Your task to perform on an android device: set an alarm Image 0: 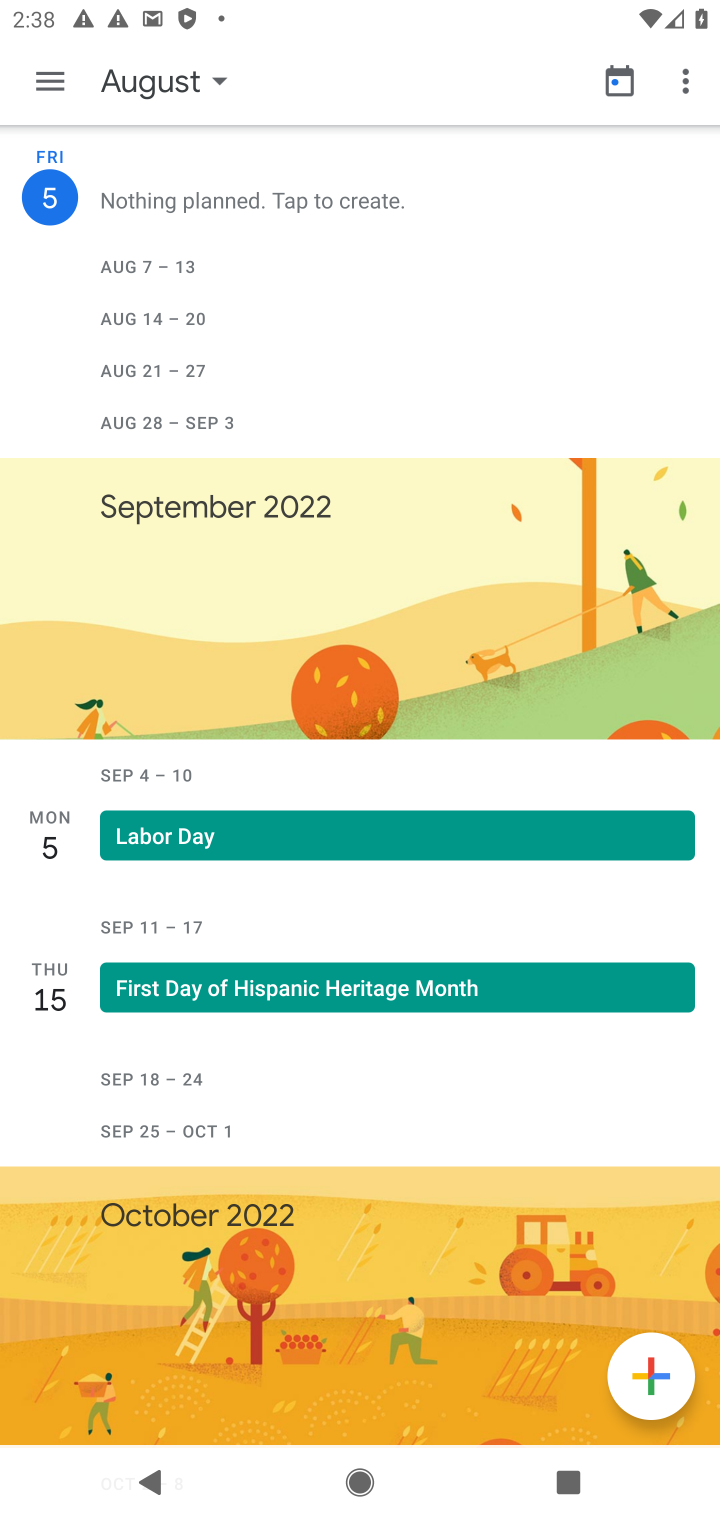
Step 0: press home button
Your task to perform on an android device: set an alarm Image 1: 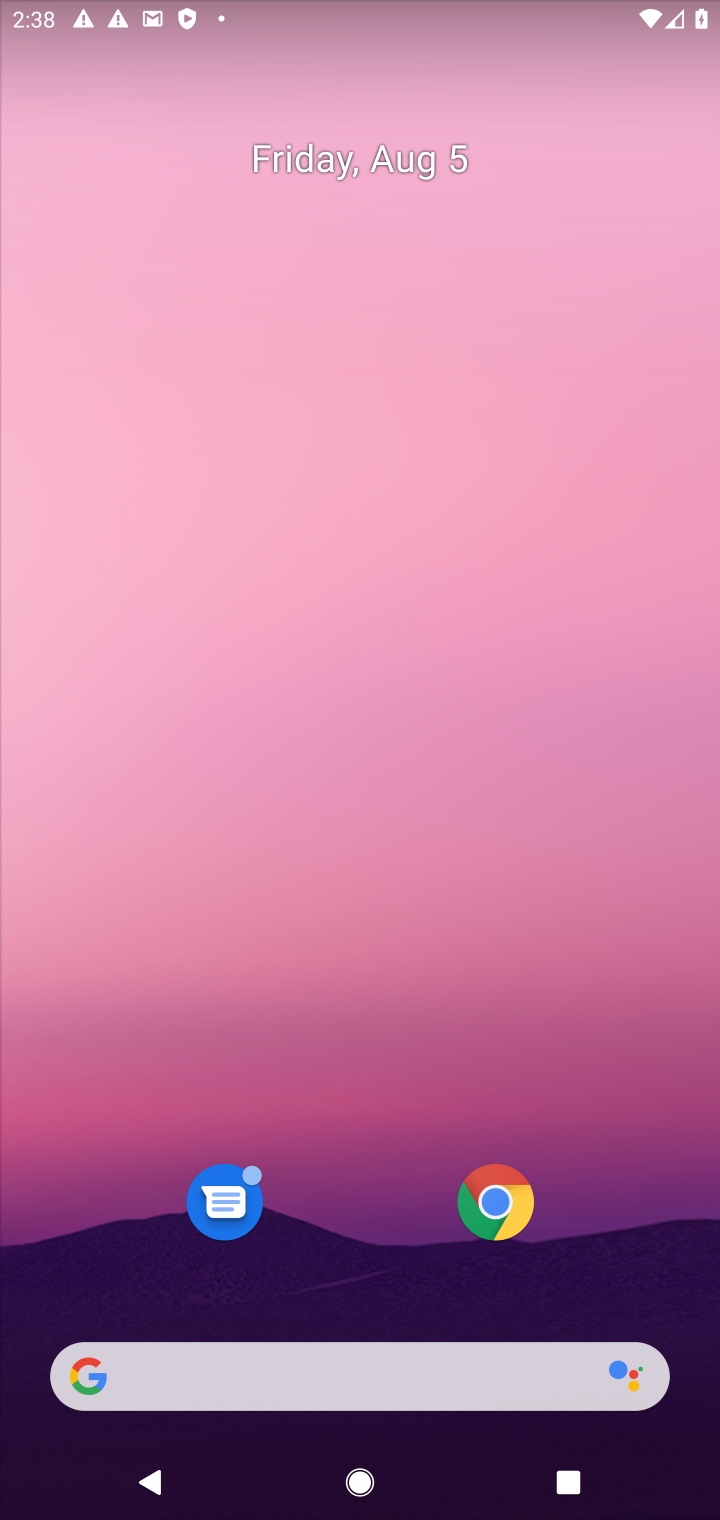
Step 1: drag from (370, 1256) to (660, 729)
Your task to perform on an android device: set an alarm Image 2: 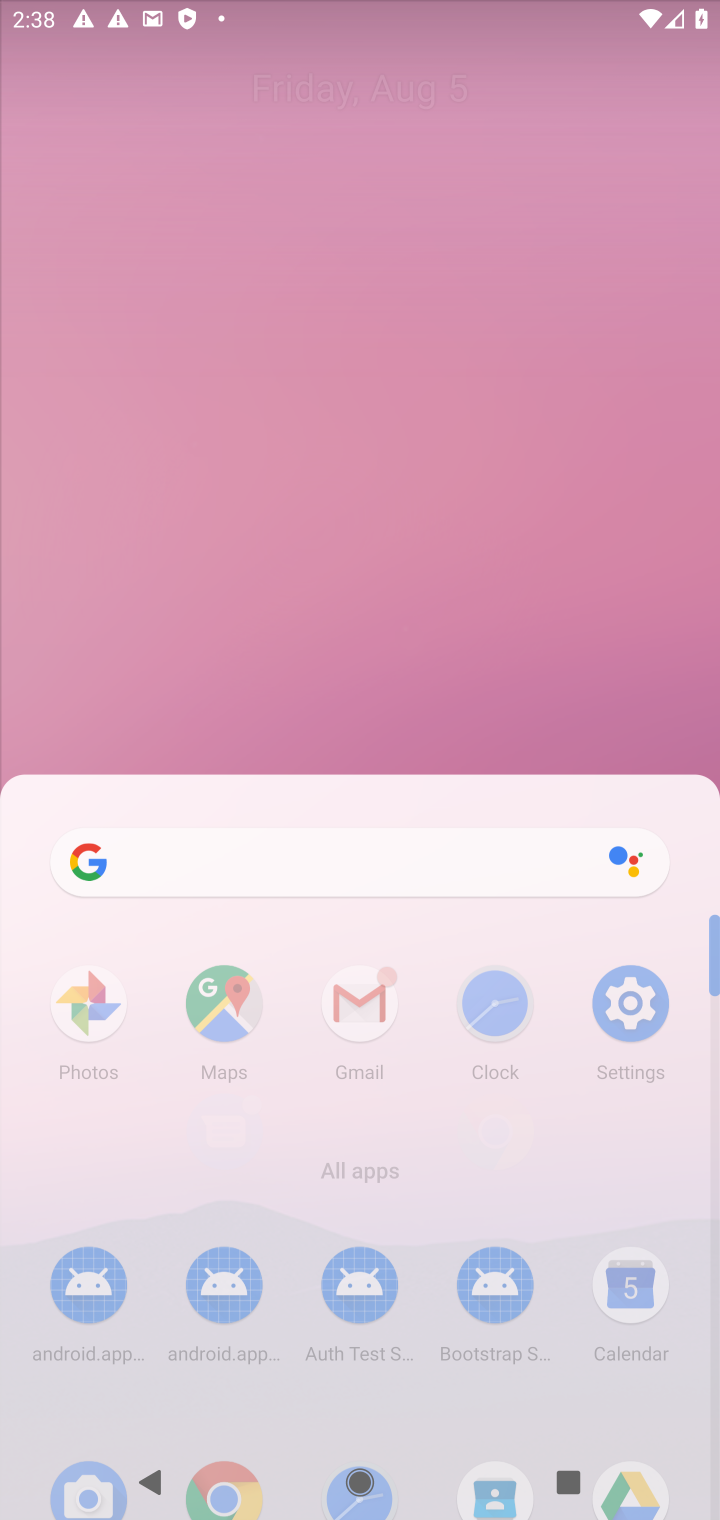
Step 2: click (351, 790)
Your task to perform on an android device: set an alarm Image 3: 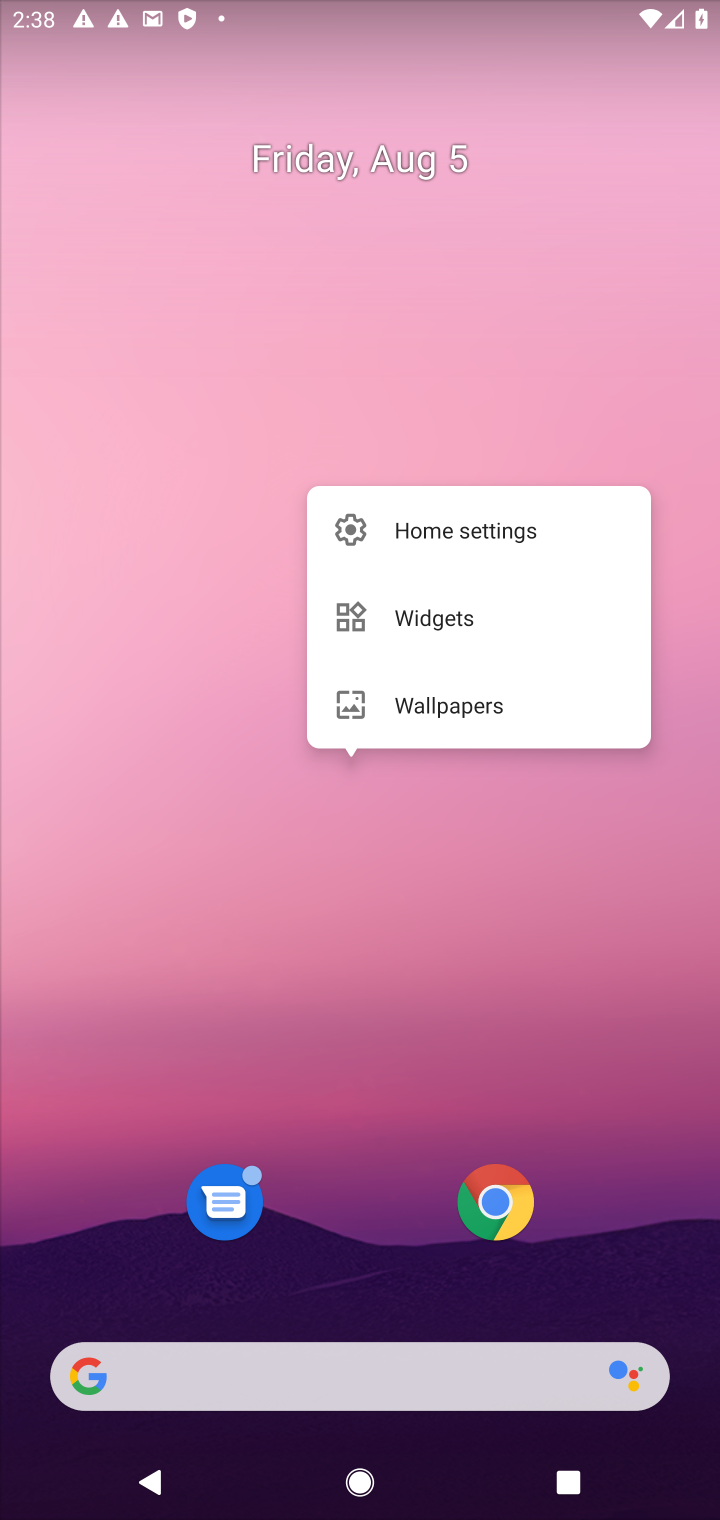
Step 3: drag from (337, 1107) to (359, 12)
Your task to perform on an android device: set an alarm Image 4: 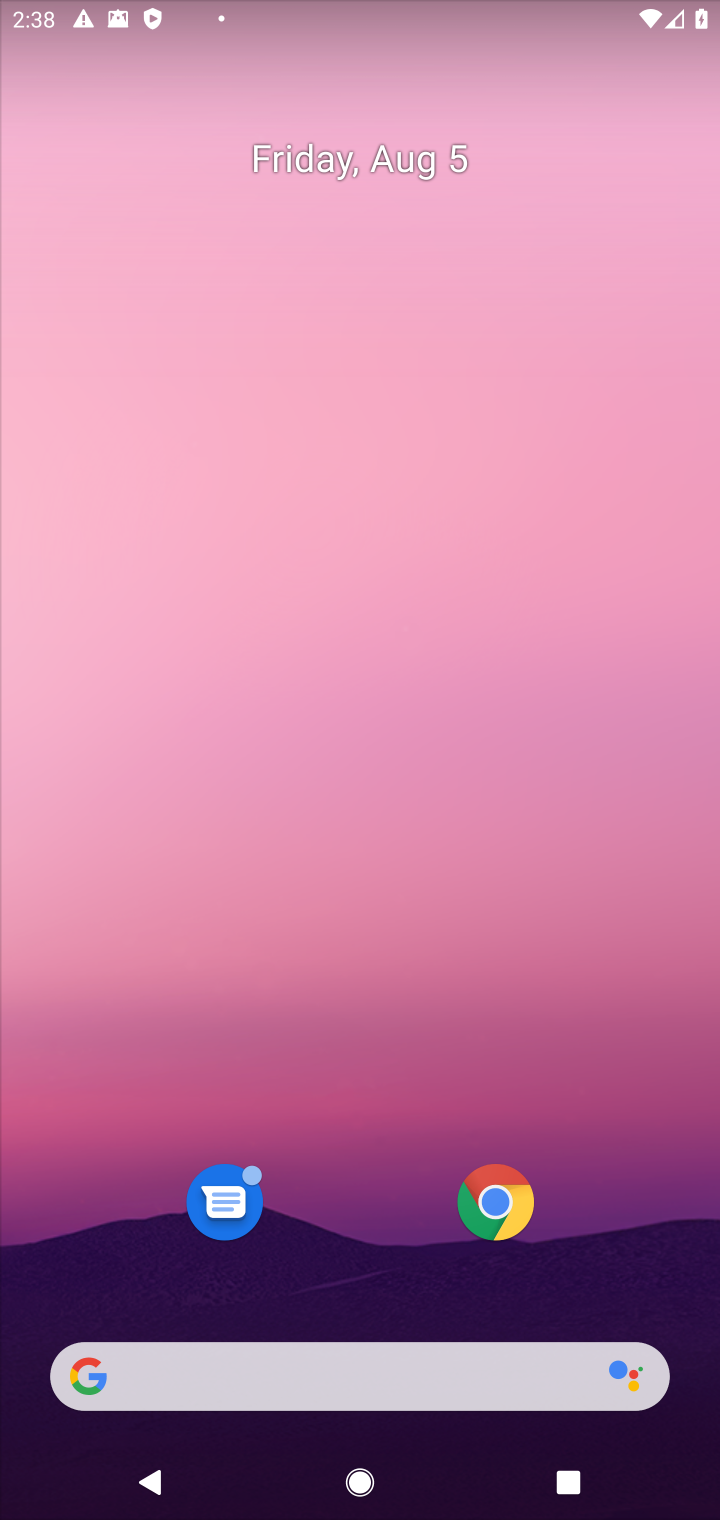
Step 4: drag from (359, 1160) to (664, 0)
Your task to perform on an android device: set an alarm Image 5: 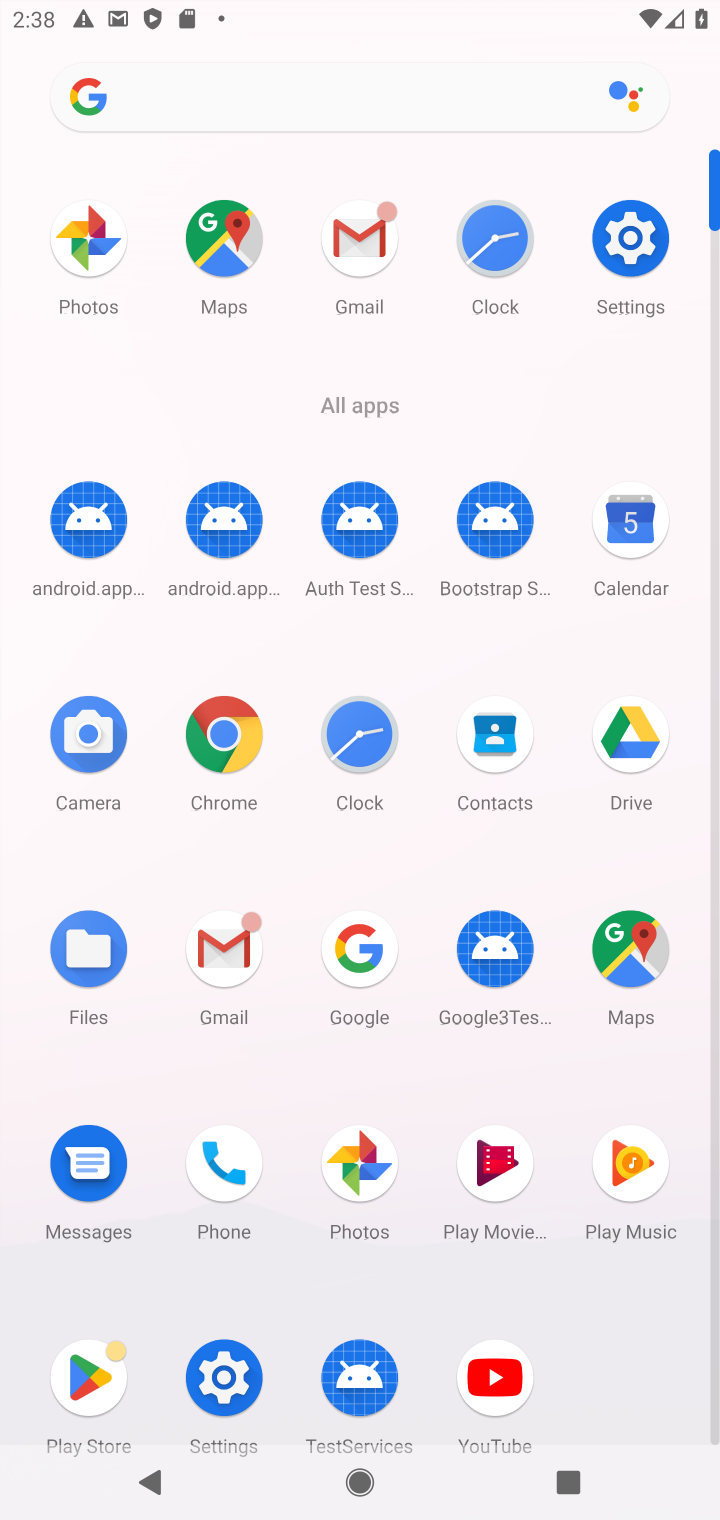
Step 5: click (359, 774)
Your task to perform on an android device: set an alarm Image 6: 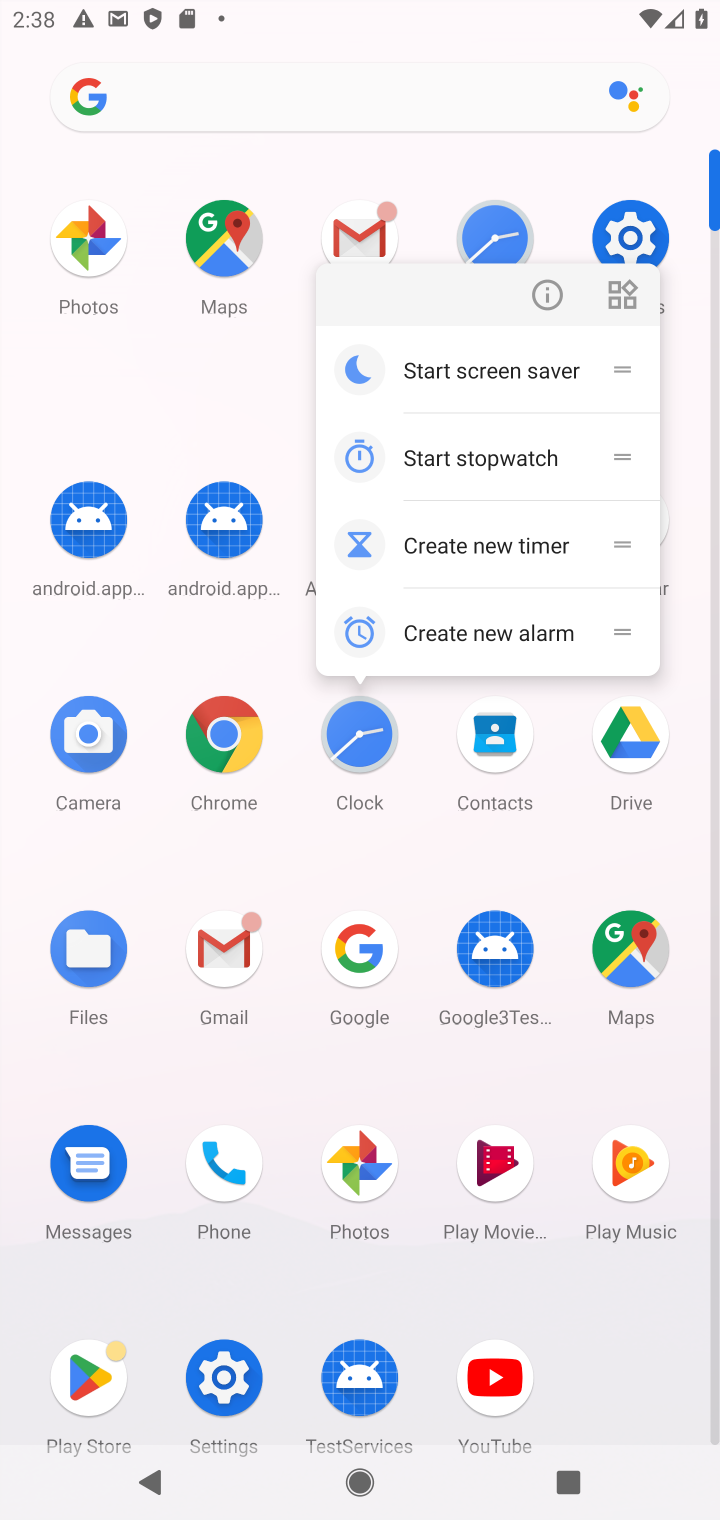
Step 6: click (367, 753)
Your task to perform on an android device: set an alarm Image 7: 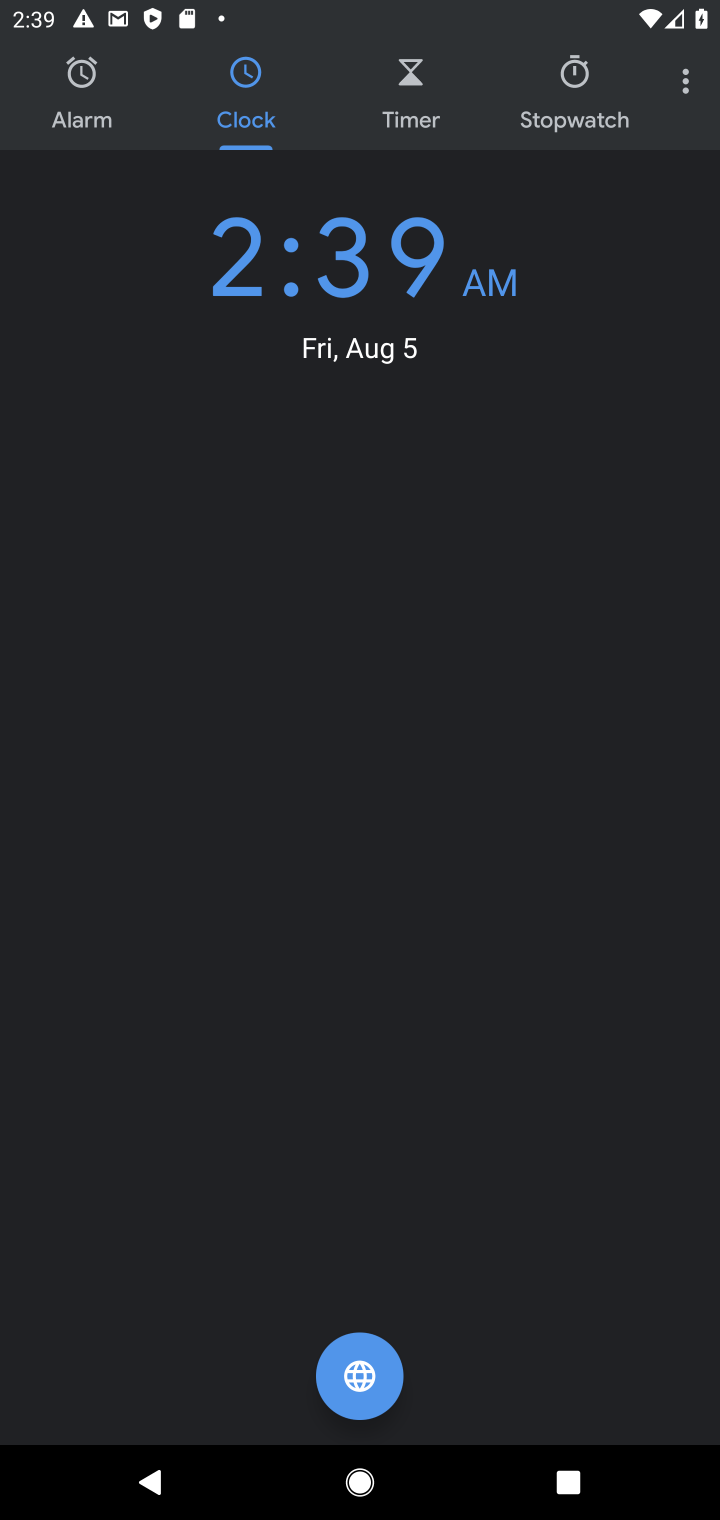
Step 7: click (67, 83)
Your task to perform on an android device: set an alarm Image 8: 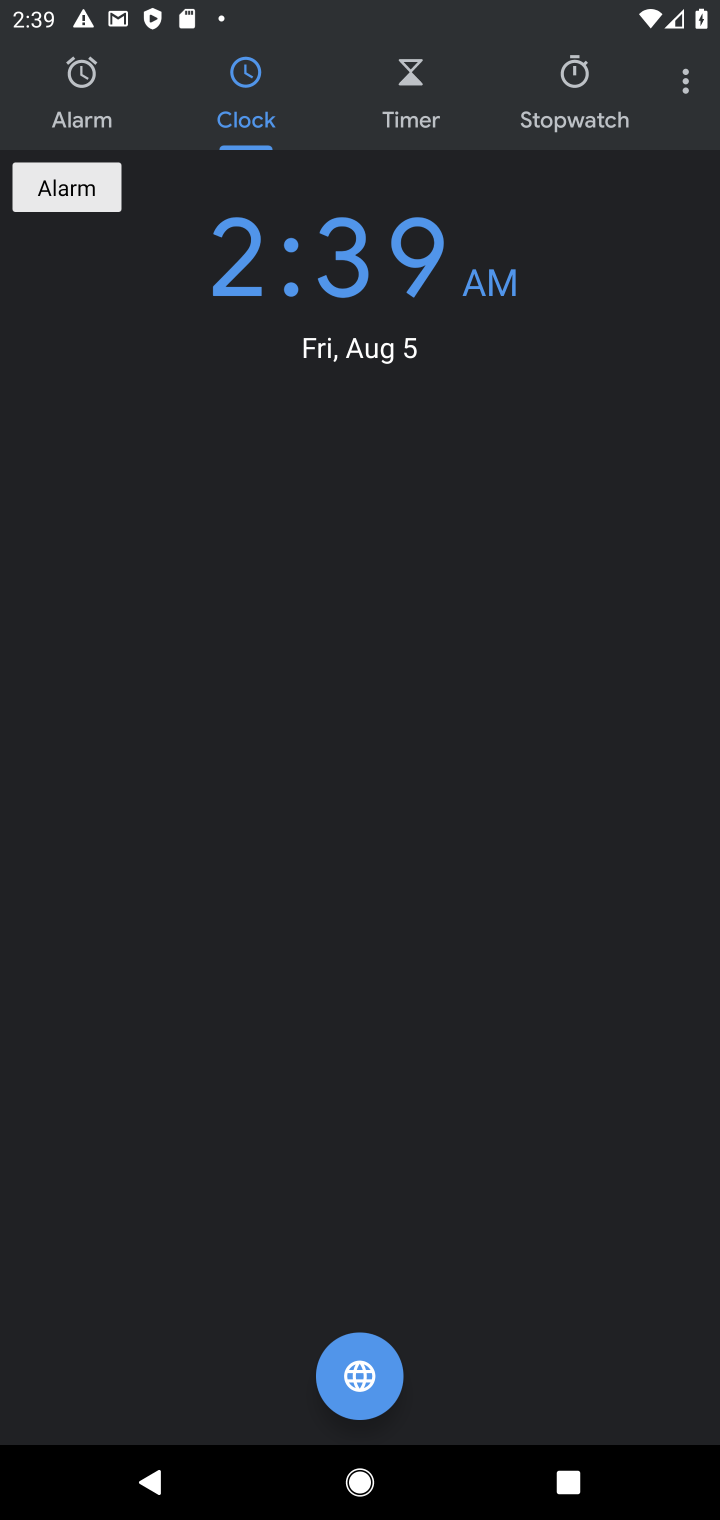
Step 8: click (59, 92)
Your task to perform on an android device: set an alarm Image 9: 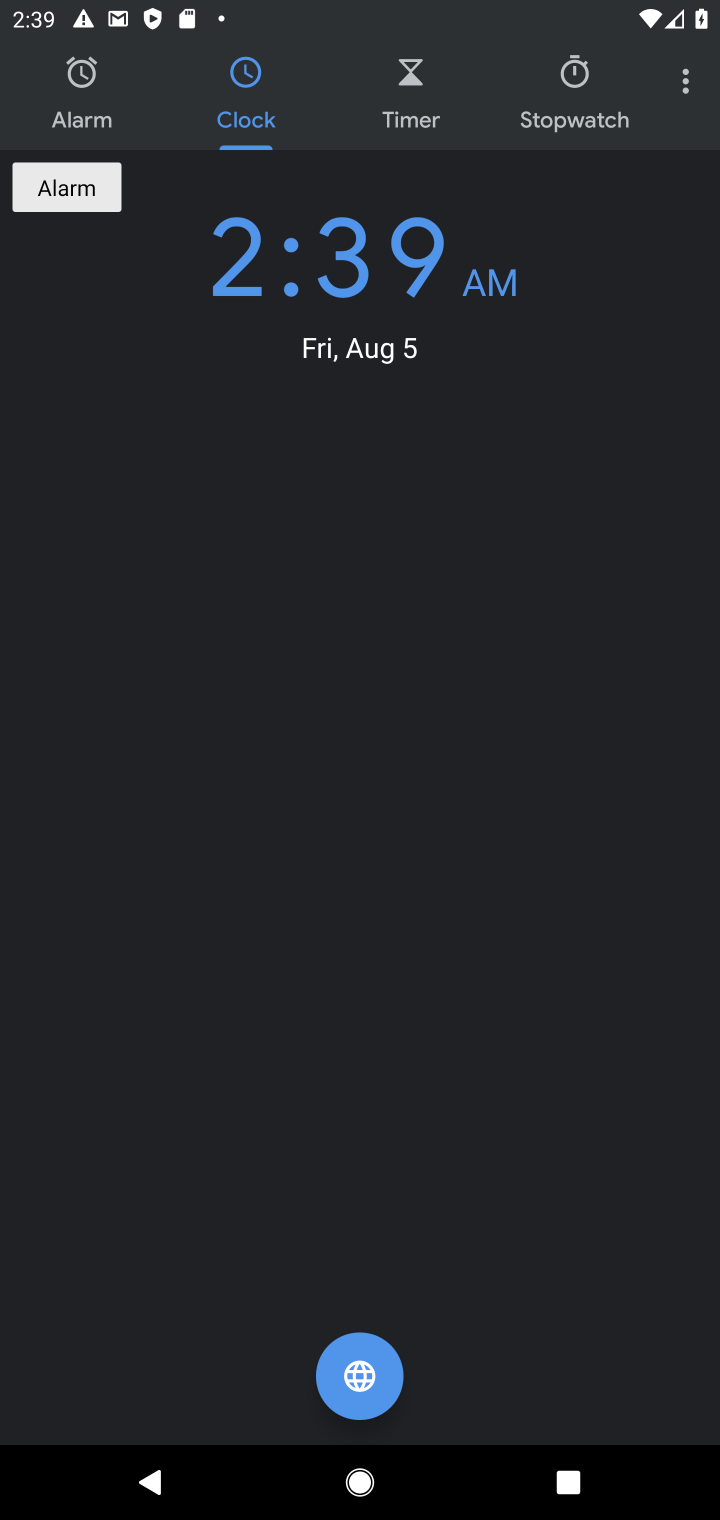
Step 9: click (59, 92)
Your task to perform on an android device: set an alarm Image 10: 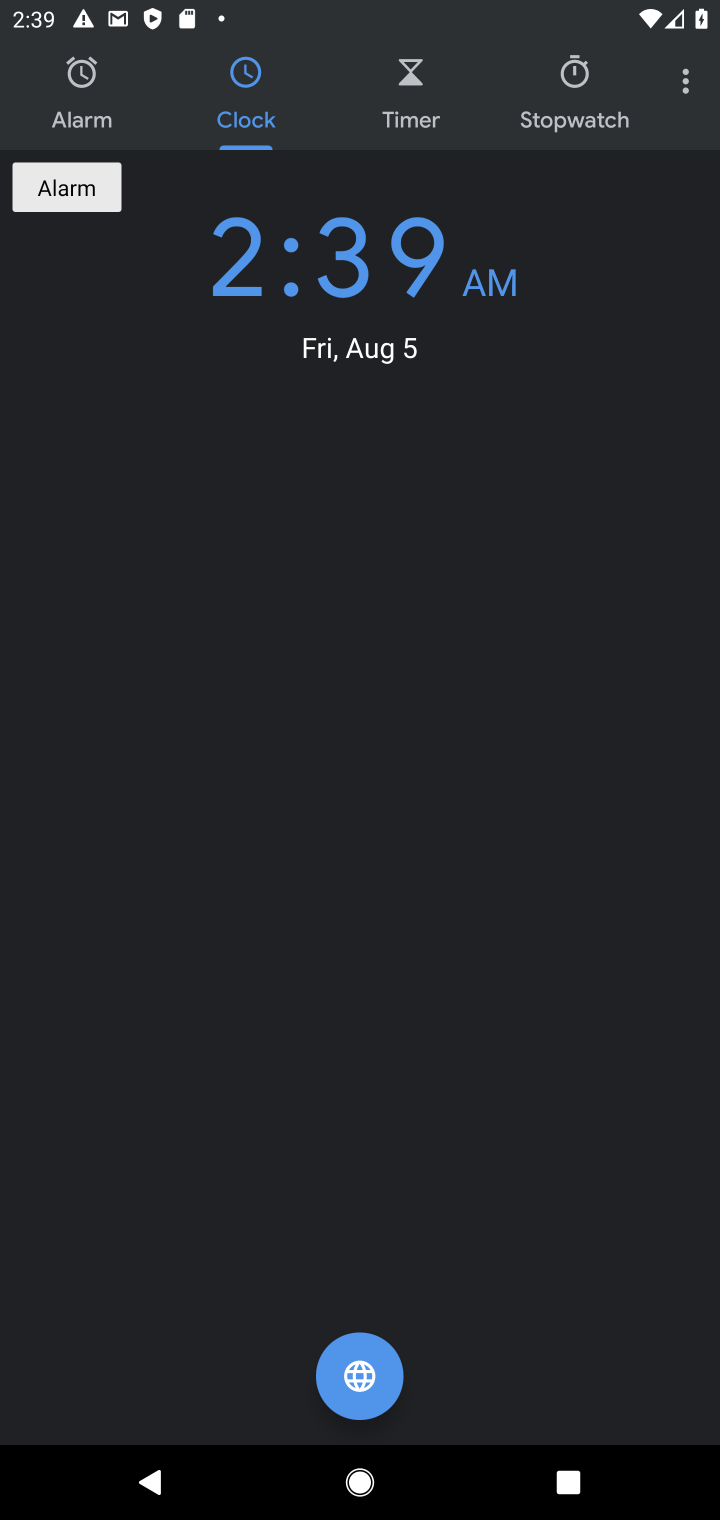
Step 10: click (59, 92)
Your task to perform on an android device: set an alarm Image 11: 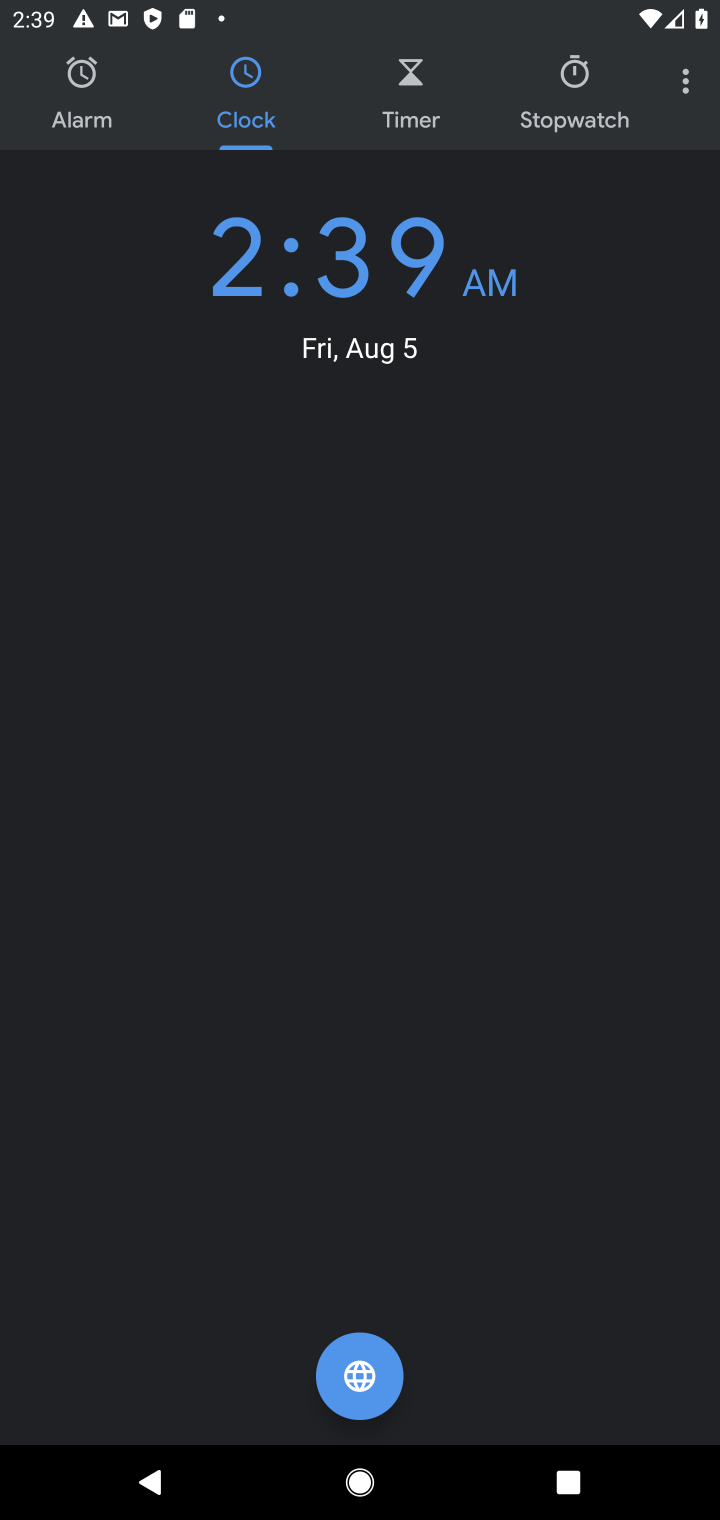
Step 11: click (89, 87)
Your task to perform on an android device: set an alarm Image 12: 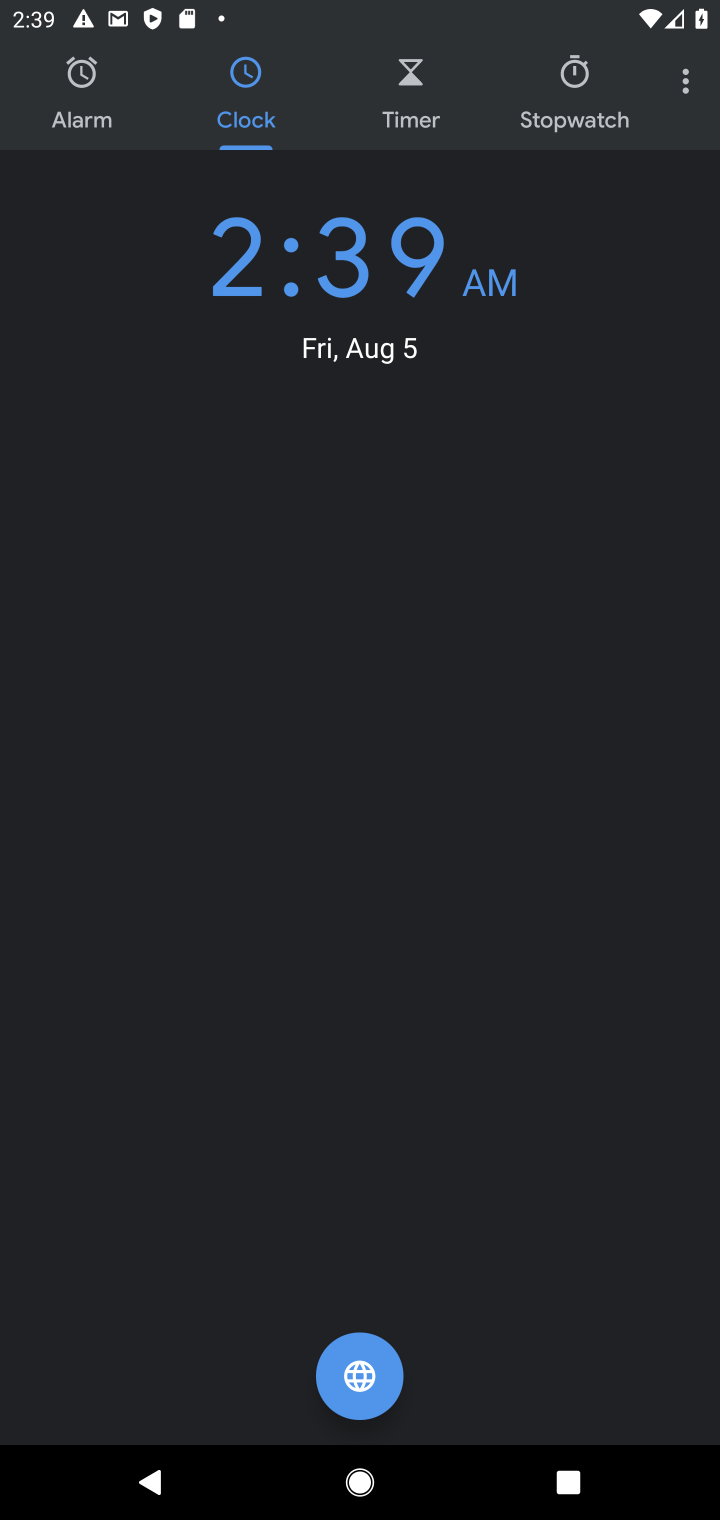
Step 12: click (89, 87)
Your task to perform on an android device: set an alarm Image 13: 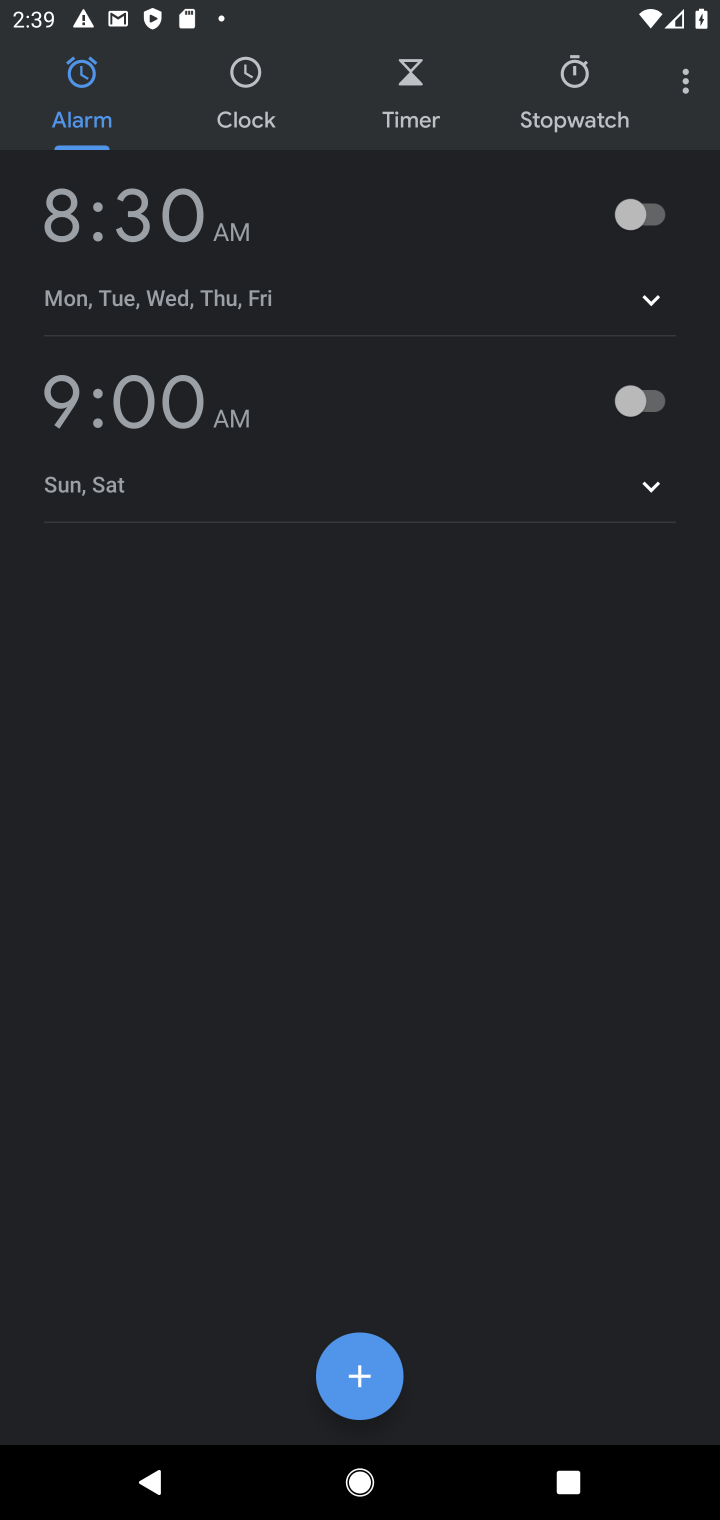
Step 13: click (383, 1363)
Your task to perform on an android device: set an alarm Image 14: 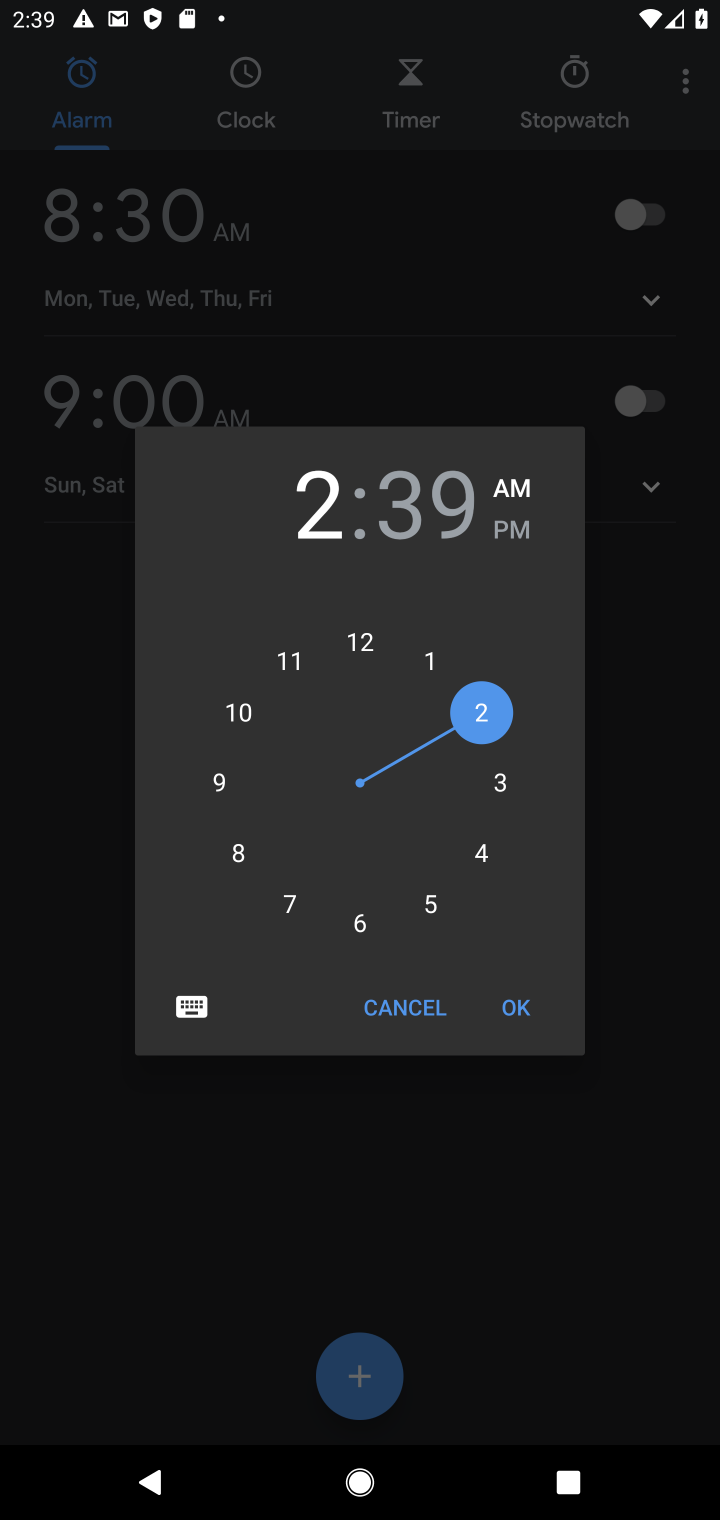
Step 14: click (536, 1011)
Your task to perform on an android device: set an alarm Image 15: 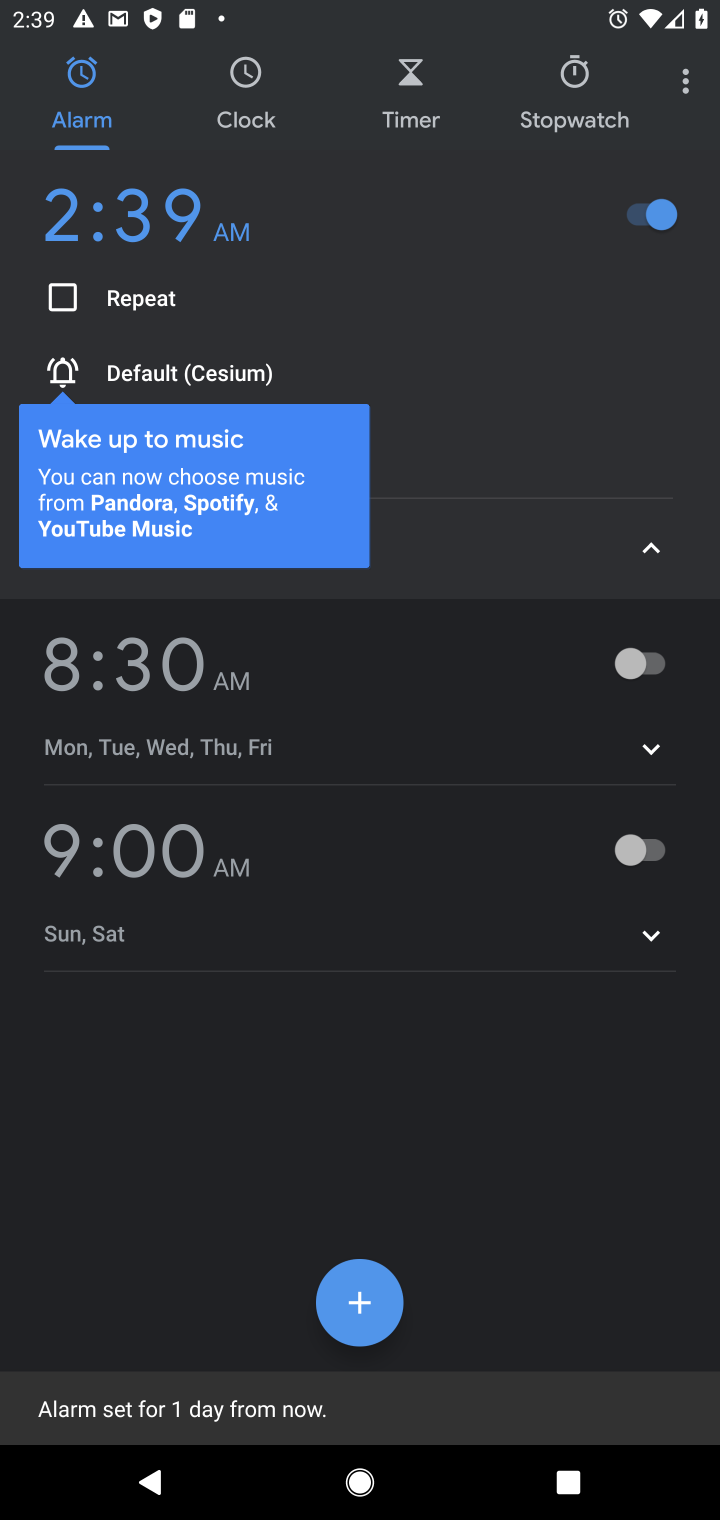
Step 15: task complete